Your task to perform on an android device: toggle wifi Image 0: 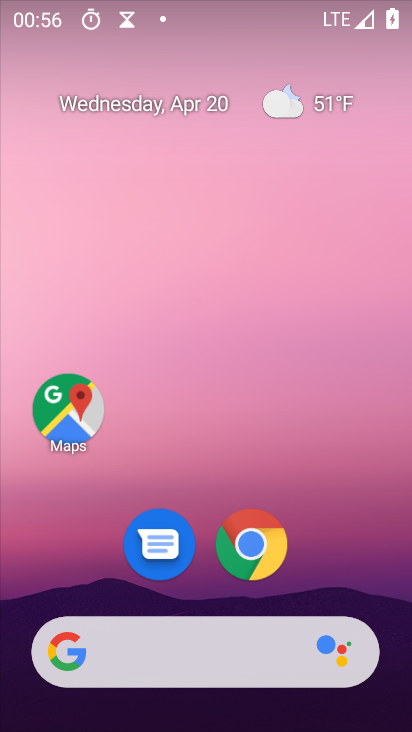
Step 0: drag from (316, 590) to (302, 48)
Your task to perform on an android device: toggle wifi Image 1: 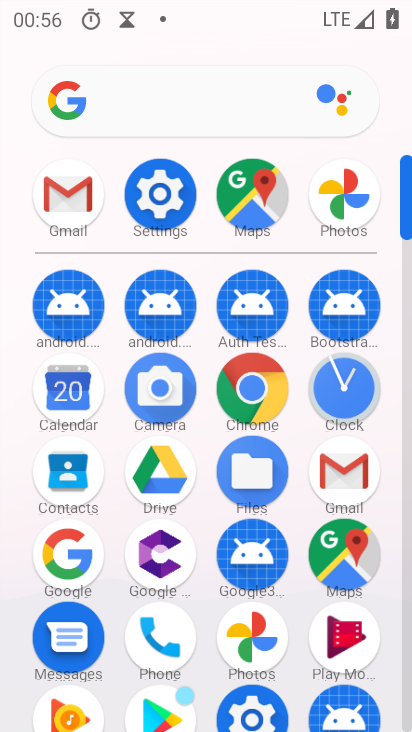
Step 1: click (252, 696)
Your task to perform on an android device: toggle wifi Image 2: 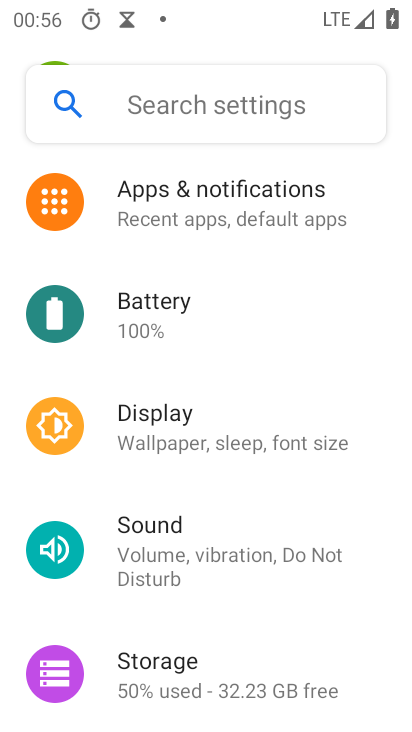
Step 2: drag from (237, 371) to (213, 473)
Your task to perform on an android device: toggle wifi Image 3: 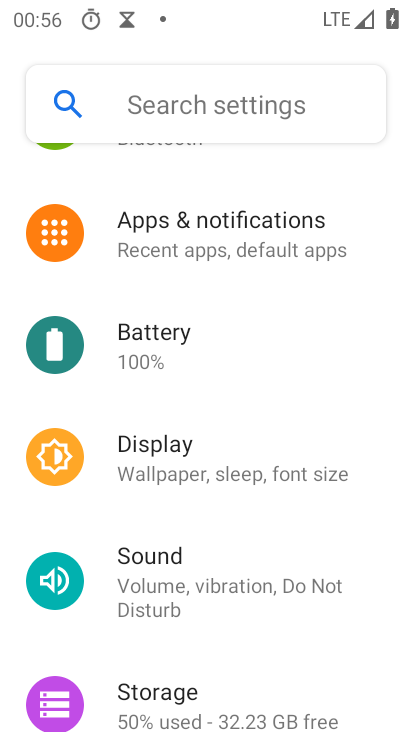
Step 3: drag from (195, 441) to (171, 565)
Your task to perform on an android device: toggle wifi Image 4: 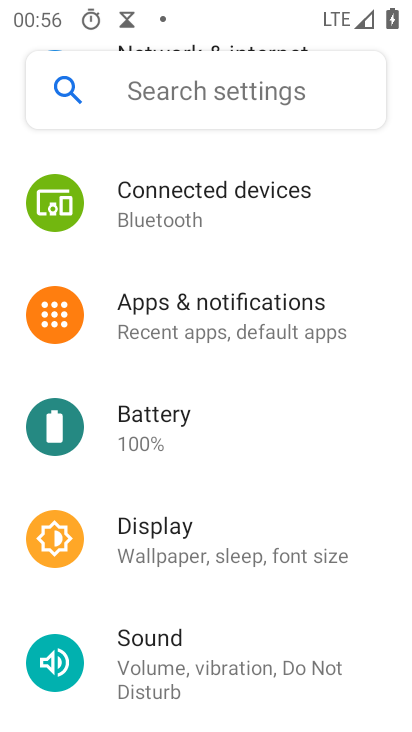
Step 4: drag from (200, 341) to (210, 599)
Your task to perform on an android device: toggle wifi Image 5: 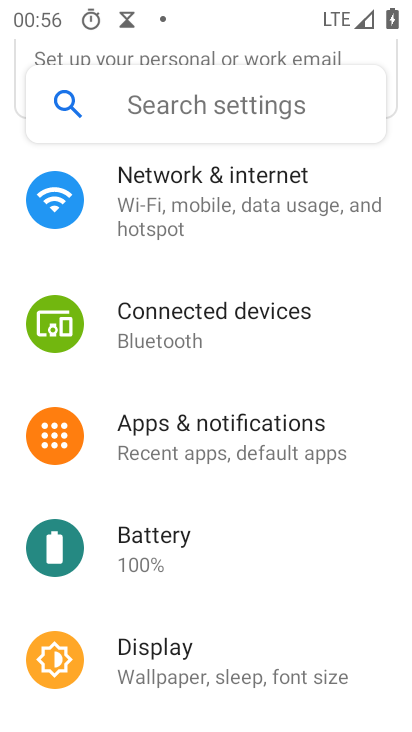
Step 5: click (226, 202)
Your task to perform on an android device: toggle wifi Image 6: 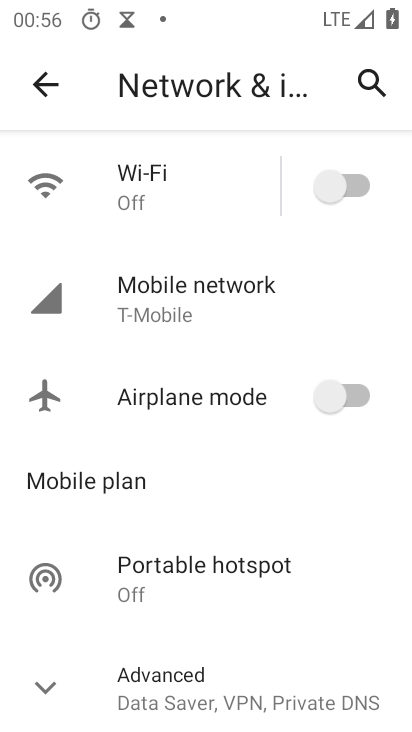
Step 6: click (343, 192)
Your task to perform on an android device: toggle wifi Image 7: 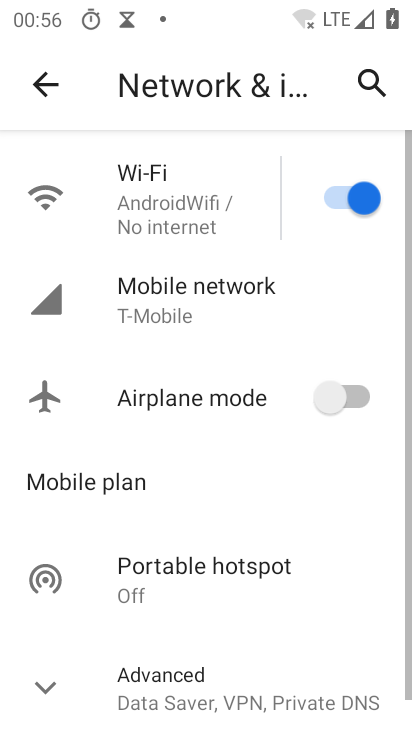
Step 7: task complete